Your task to perform on an android device: turn off smart reply in the gmail app Image 0: 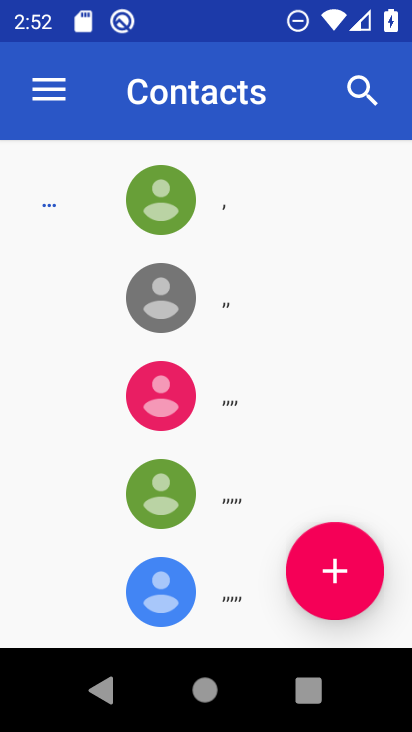
Step 0: press home button
Your task to perform on an android device: turn off smart reply in the gmail app Image 1: 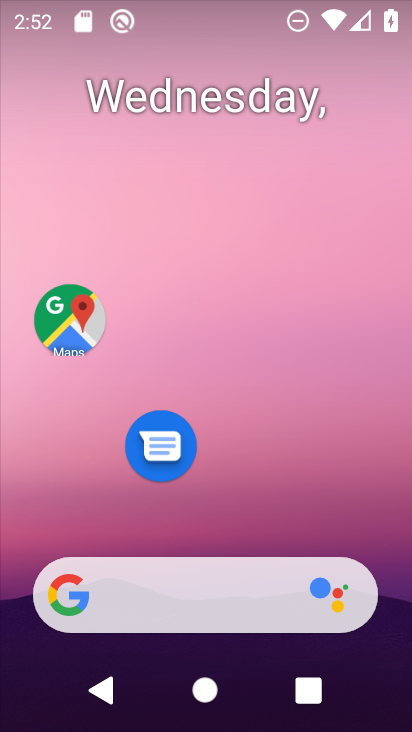
Step 1: drag from (243, 457) to (265, 185)
Your task to perform on an android device: turn off smart reply in the gmail app Image 2: 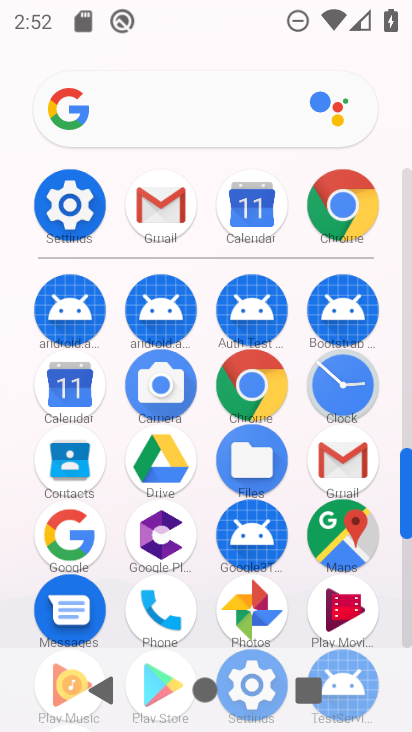
Step 2: click (166, 225)
Your task to perform on an android device: turn off smart reply in the gmail app Image 3: 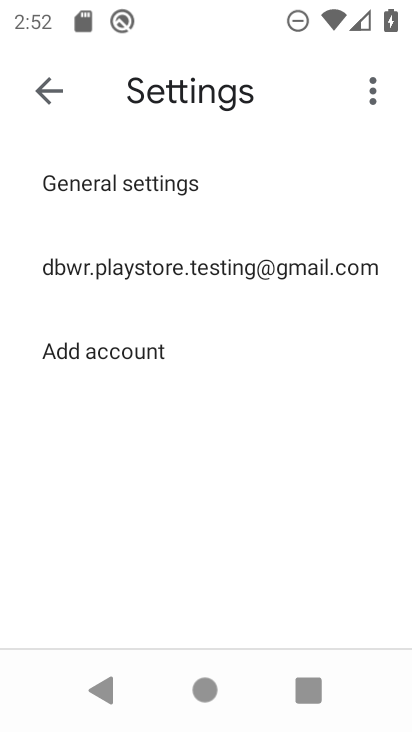
Step 3: click (166, 225)
Your task to perform on an android device: turn off smart reply in the gmail app Image 4: 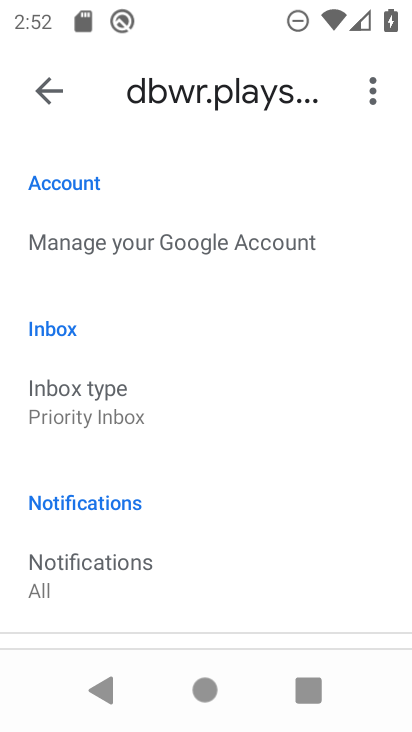
Step 4: drag from (102, 496) to (138, 191)
Your task to perform on an android device: turn off smart reply in the gmail app Image 5: 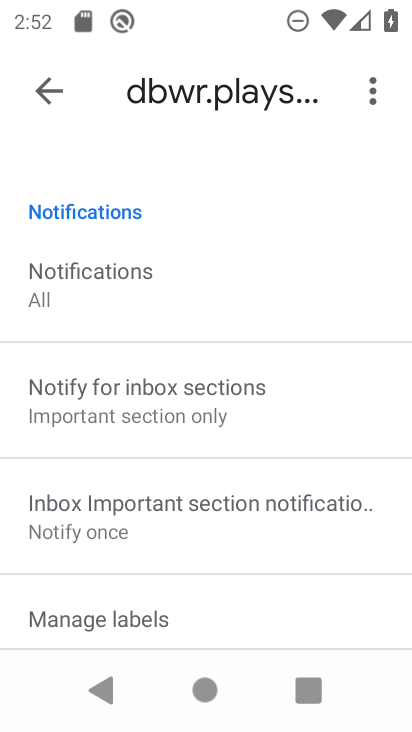
Step 5: drag from (126, 558) to (213, 205)
Your task to perform on an android device: turn off smart reply in the gmail app Image 6: 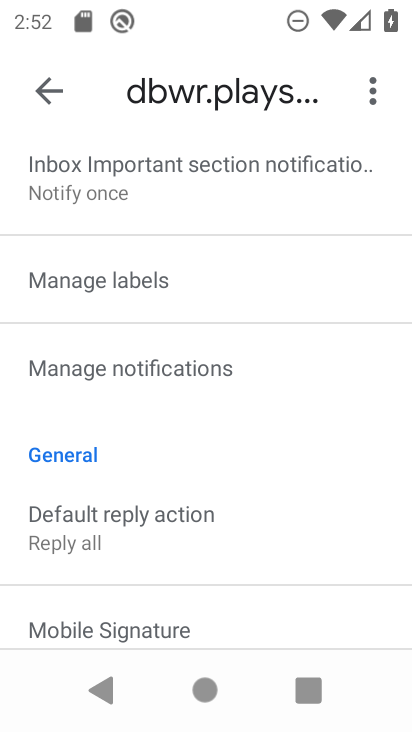
Step 6: drag from (219, 480) to (247, 251)
Your task to perform on an android device: turn off smart reply in the gmail app Image 7: 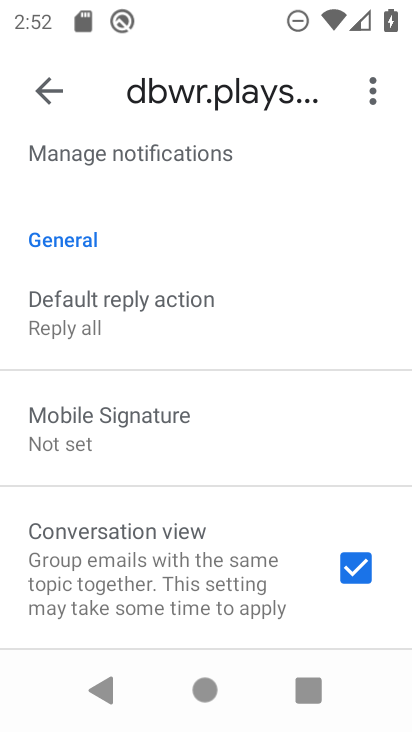
Step 7: drag from (218, 425) to (223, 293)
Your task to perform on an android device: turn off smart reply in the gmail app Image 8: 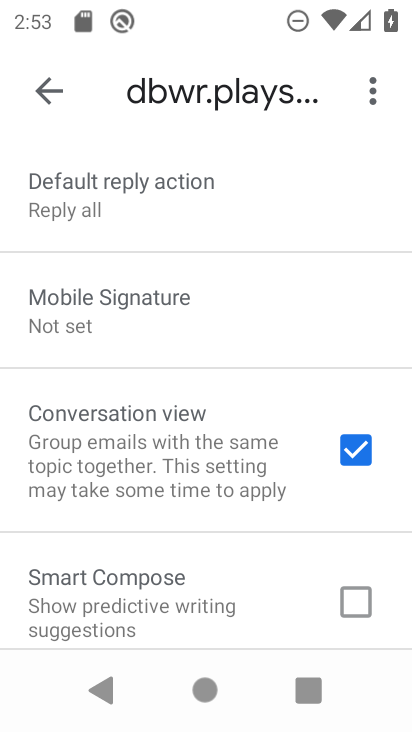
Step 8: drag from (174, 452) to (170, 251)
Your task to perform on an android device: turn off smart reply in the gmail app Image 9: 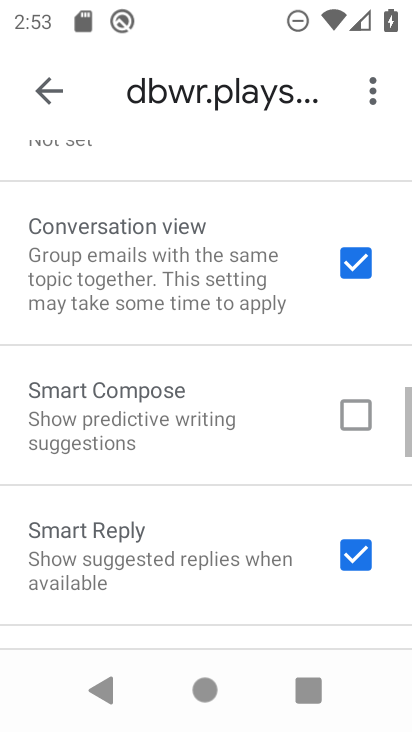
Step 9: click (170, 251)
Your task to perform on an android device: turn off smart reply in the gmail app Image 10: 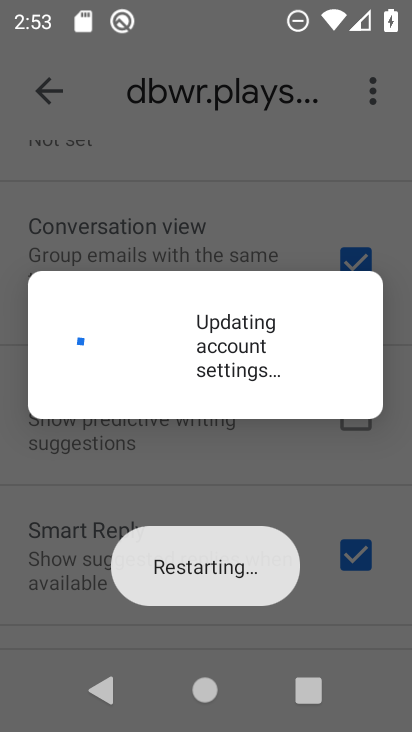
Step 10: task complete